Your task to perform on an android device: Open internet settings Image 0: 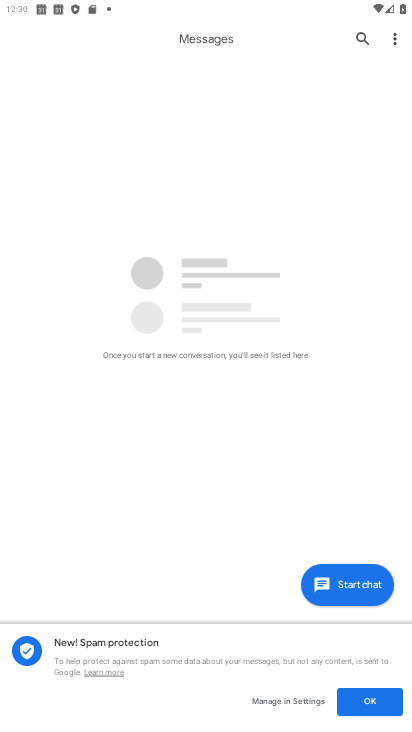
Step 0: press home button
Your task to perform on an android device: Open internet settings Image 1: 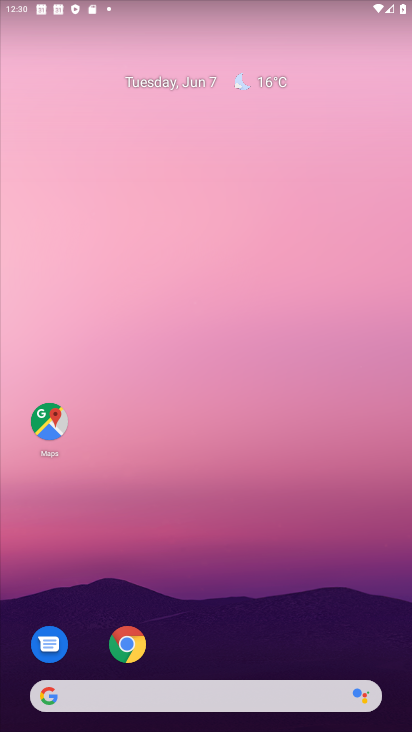
Step 1: drag from (325, 643) to (299, 532)
Your task to perform on an android device: Open internet settings Image 2: 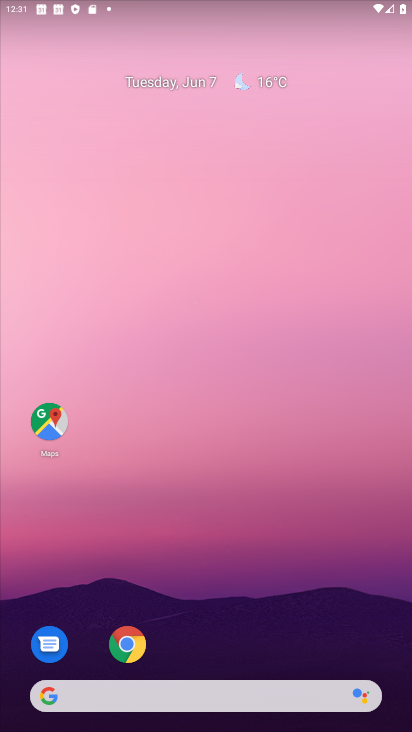
Step 2: drag from (183, 601) to (29, 79)
Your task to perform on an android device: Open internet settings Image 3: 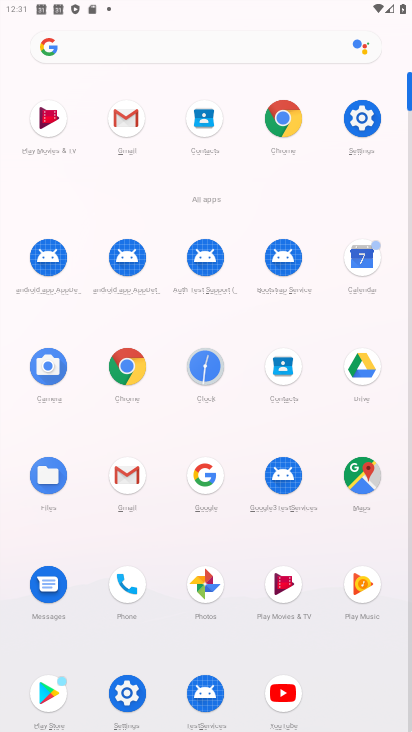
Step 3: click (381, 117)
Your task to perform on an android device: Open internet settings Image 4: 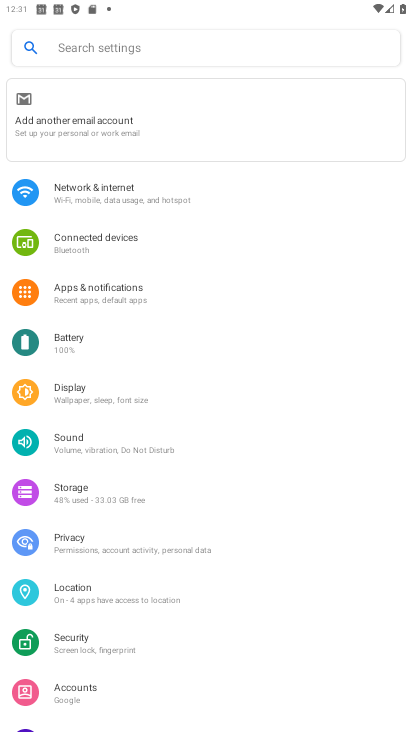
Step 4: click (178, 193)
Your task to perform on an android device: Open internet settings Image 5: 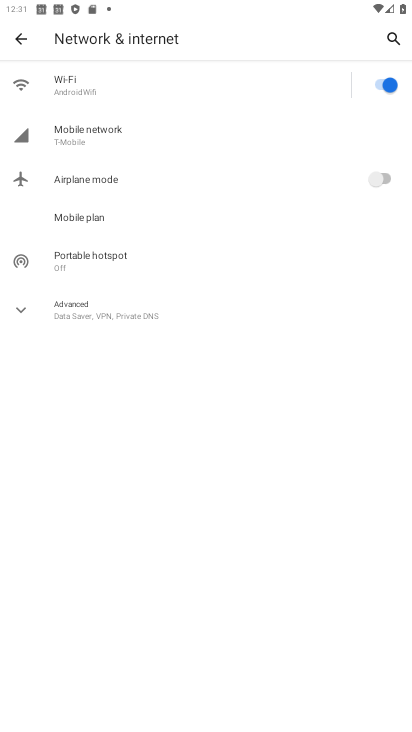
Step 5: task complete